Your task to perform on an android device: Open Google Image 0: 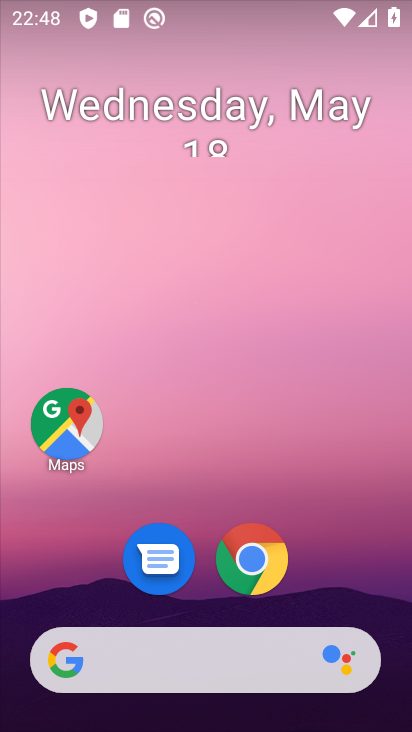
Step 0: click (187, 662)
Your task to perform on an android device: Open Google Image 1: 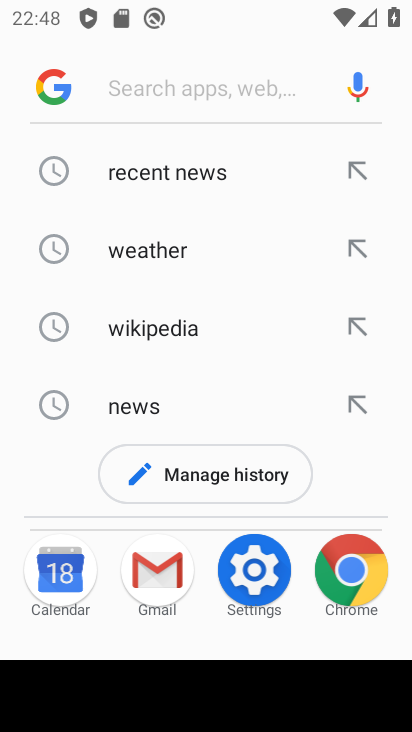
Step 1: task complete